Your task to perform on an android device: move an email to a new category in the gmail app Image 0: 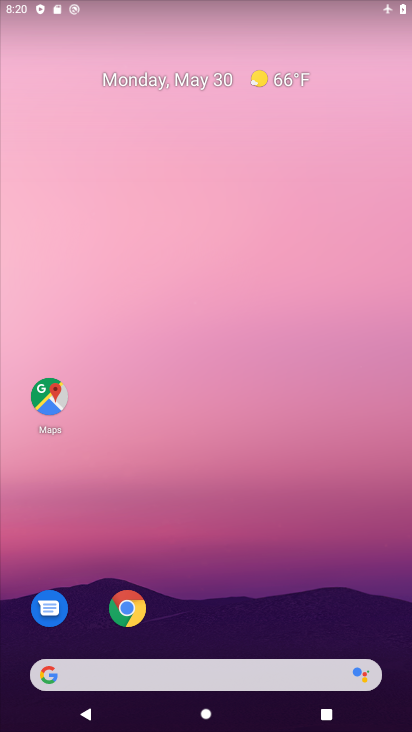
Step 0: drag from (230, 729) to (225, 90)
Your task to perform on an android device: move an email to a new category in the gmail app Image 1: 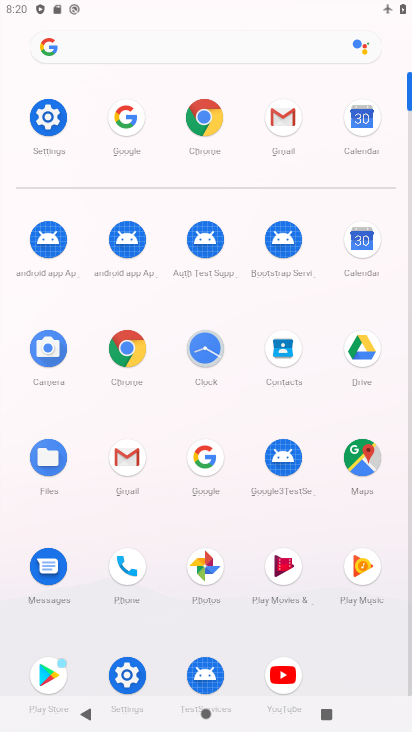
Step 1: click (130, 458)
Your task to perform on an android device: move an email to a new category in the gmail app Image 2: 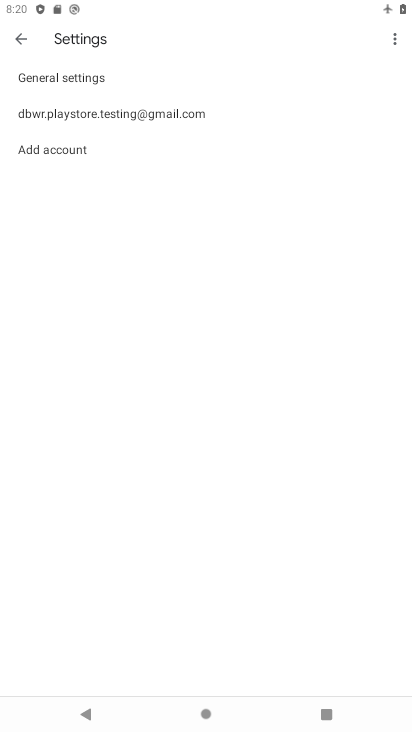
Step 2: click (18, 40)
Your task to perform on an android device: move an email to a new category in the gmail app Image 3: 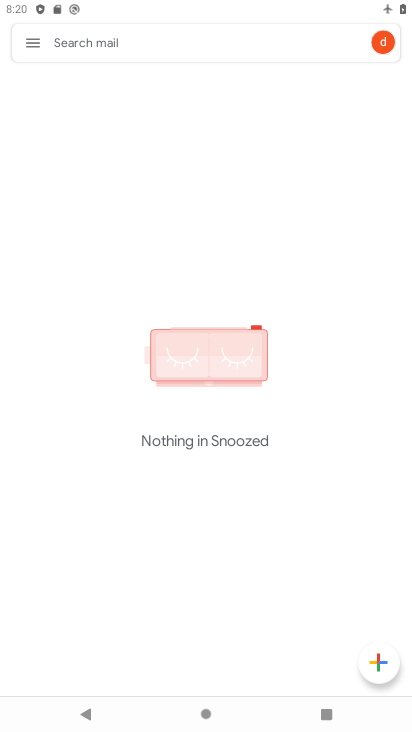
Step 3: click (30, 37)
Your task to perform on an android device: move an email to a new category in the gmail app Image 4: 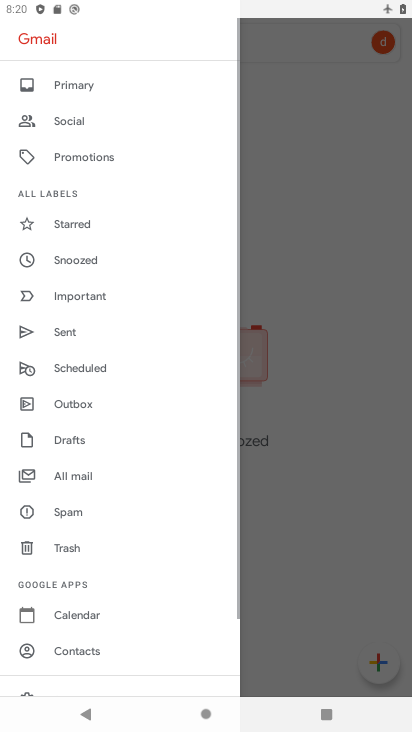
Step 4: drag from (82, 79) to (96, 382)
Your task to perform on an android device: move an email to a new category in the gmail app Image 5: 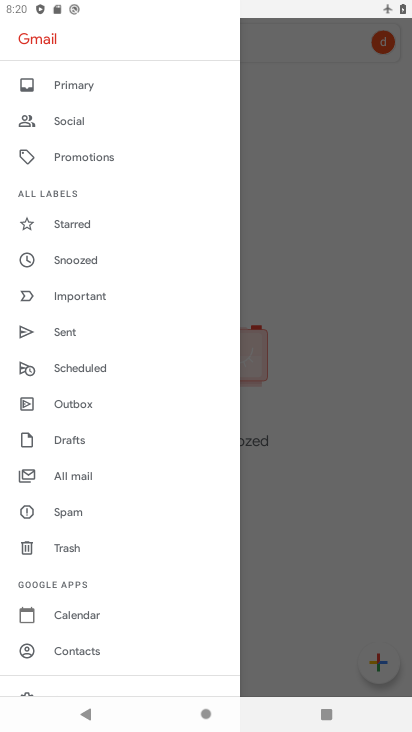
Step 5: click (87, 86)
Your task to perform on an android device: move an email to a new category in the gmail app Image 6: 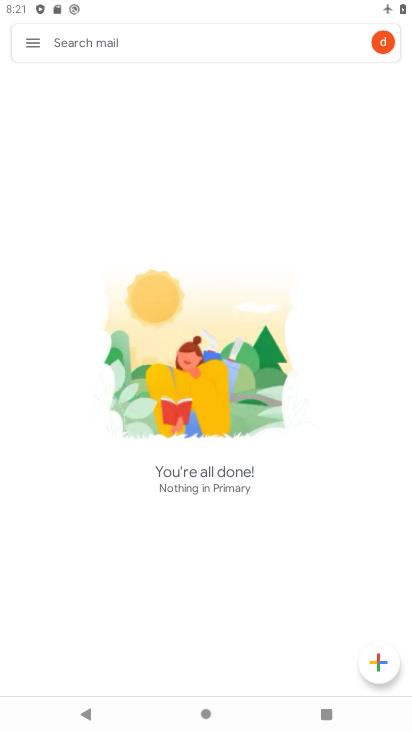
Step 6: task complete